Your task to perform on an android device: change the clock display to show seconds Image 0: 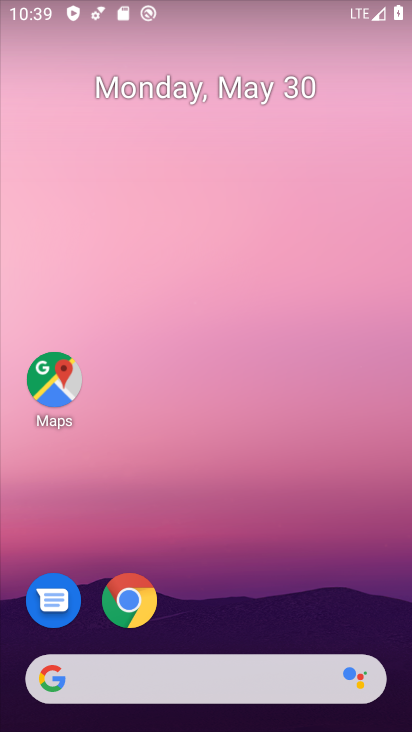
Step 0: drag from (203, 588) to (233, 204)
Your task to perform on an android device: change the clock display to show seconds Image 1: 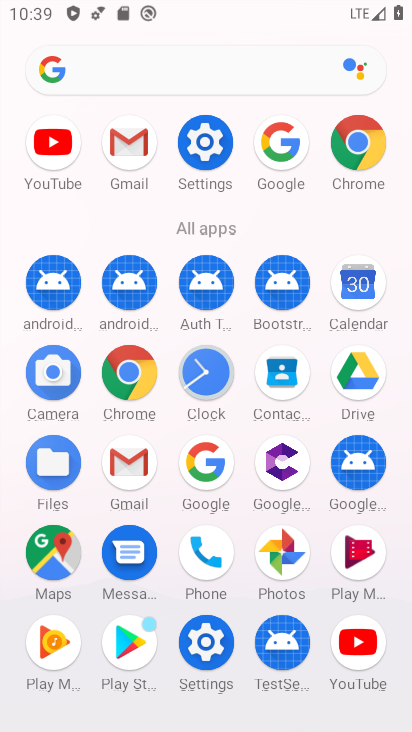
Step 1: click (198, 381)
Your task to perform on an android device: change the clock display to show seconds Image 2: 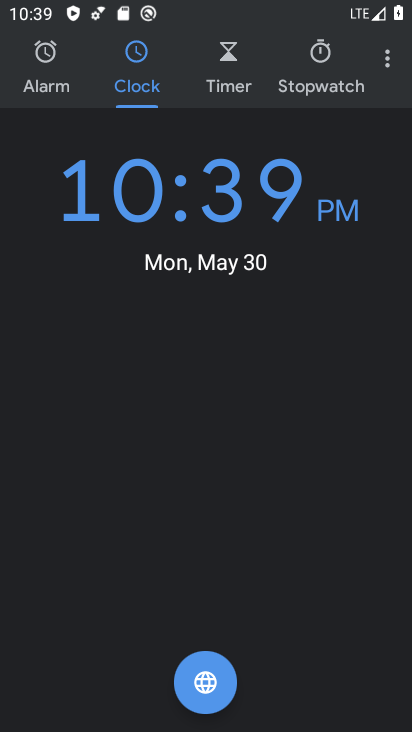
Step 2: click (383, 60)
Your task to perform on an android device: change the clock display to show seconds Image 3: 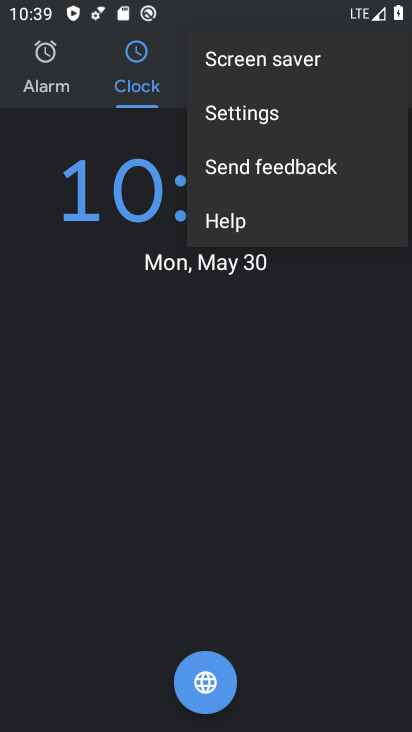
Step 3: click (252, 110)
Your task to perform on an android device: change the clock display to show seconds Image 4: 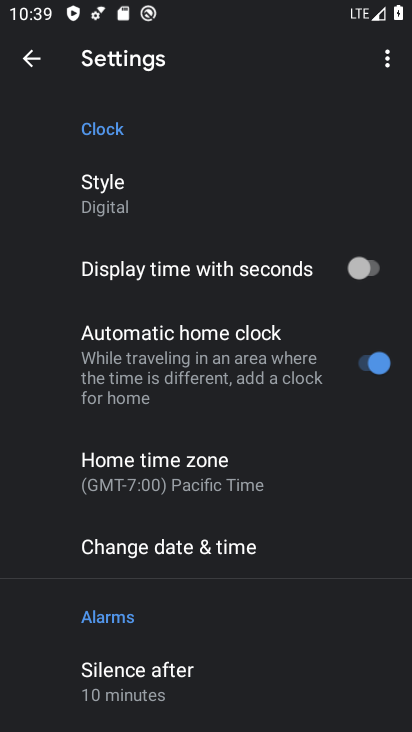
Step 4: click (157, 201)
Your task to perform on an android device: change the clock display to show seconds Image 5: 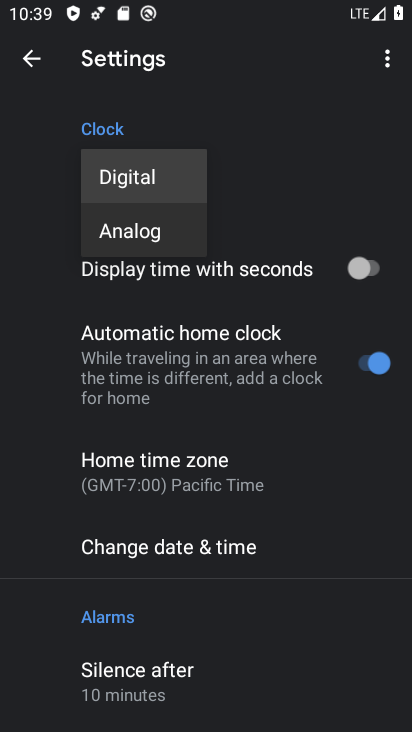
Step 5: click (330, 192)
Your task to perform on an android device: change the clock display to show seconds Image 6: 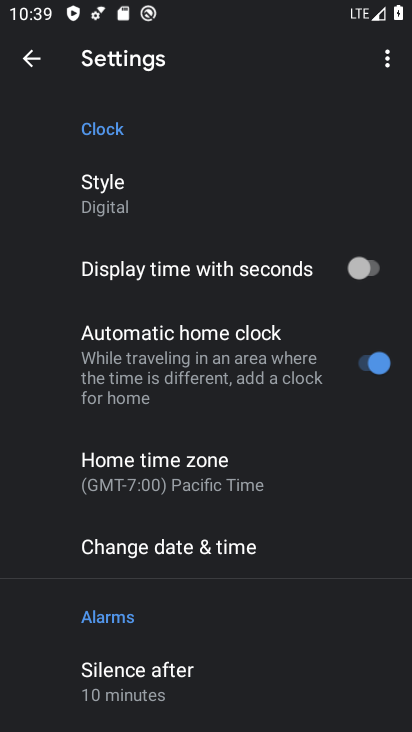
Step 6: click (376, 265)
Your task to perform on an android device: change the clock display to show seconds Image 7: 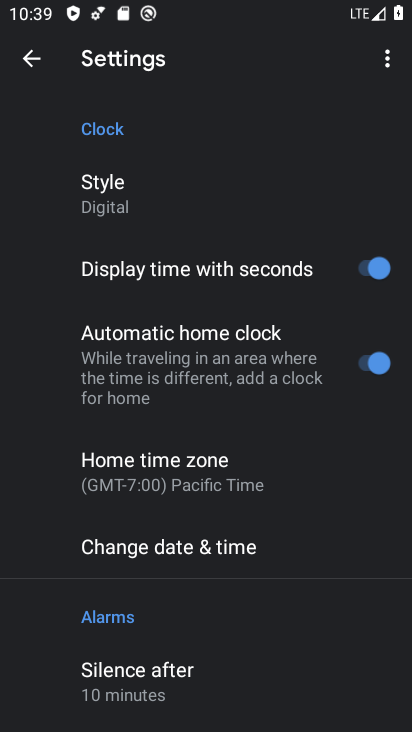
Step 7: task complete